Your task to perform on an android device: change the clock display to show seconds Image 0: 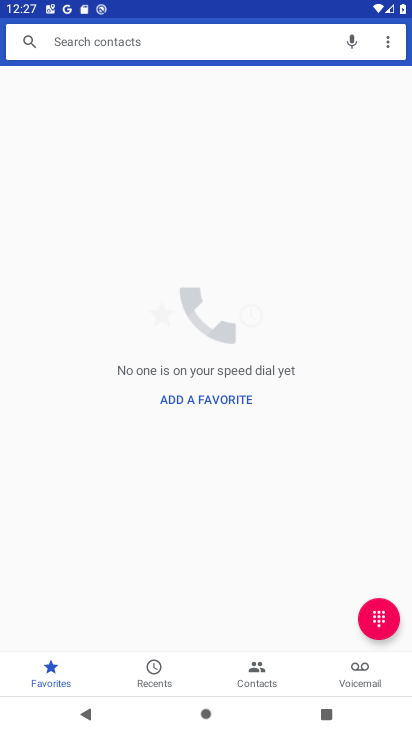
Step 0: press home button
Your task to perform on an android device: change the clock display to show seconds Image 1: 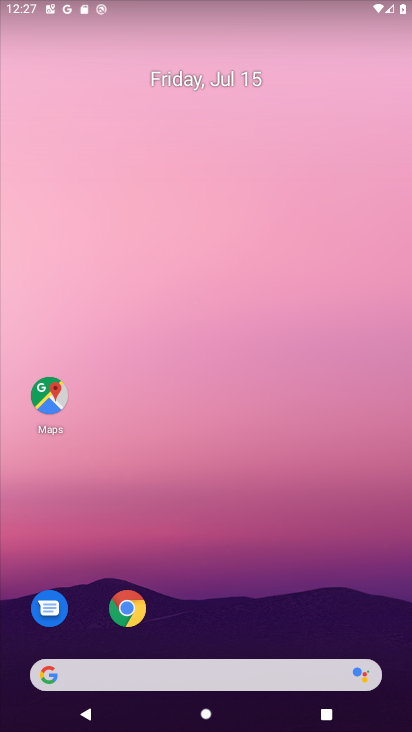
Step 1: drag from (201, 568) to (140, 0)
Your task to perform on an android device: change the clock display to show seconds Image 2: 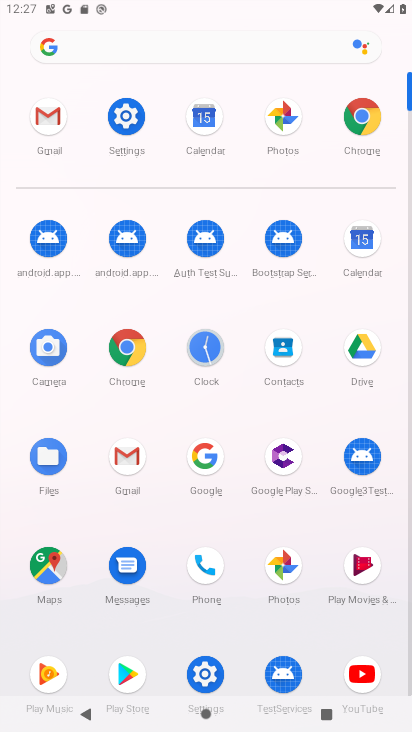
Step 2: click (205, 353)
Your task to perform on an android device: change the clock display to show seconds Image 3: 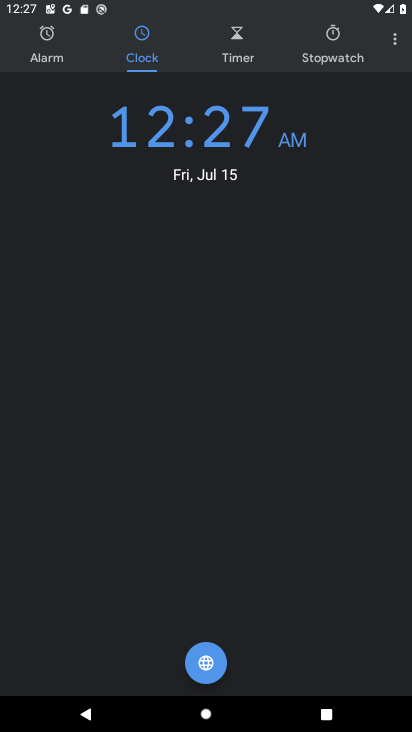
Step 3: click (393, 44)
Your task to perform on an android device: change the clock display to show seconds Image 4: 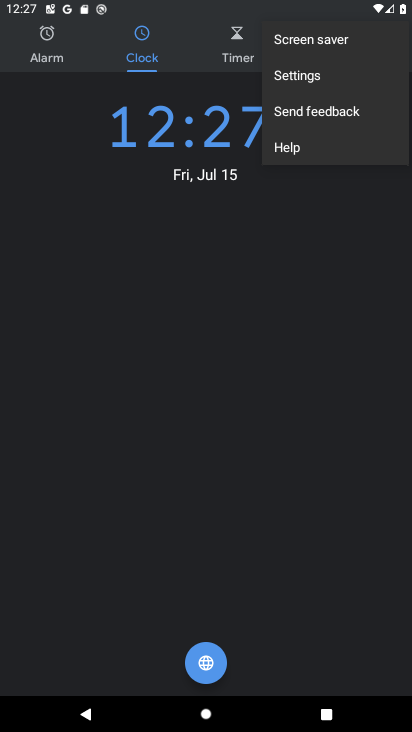
Step 4: click (314, 67)
Your task to perform on an android device: change the clock display to show seconds Image 5: 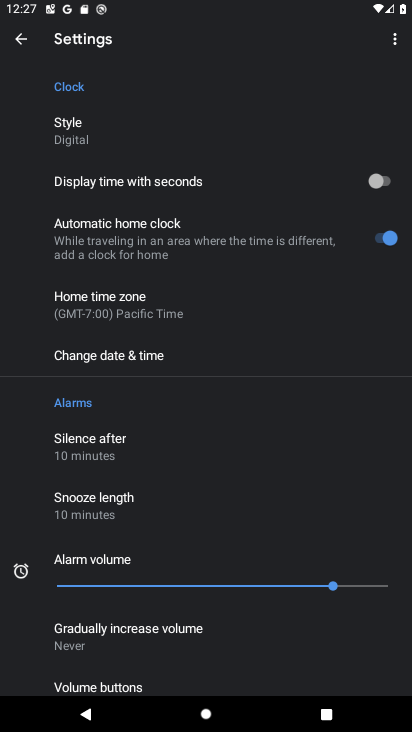
Step 5: click (370, 183)
Your task to perform on an android device: change the clock display to show seconds Image 6: 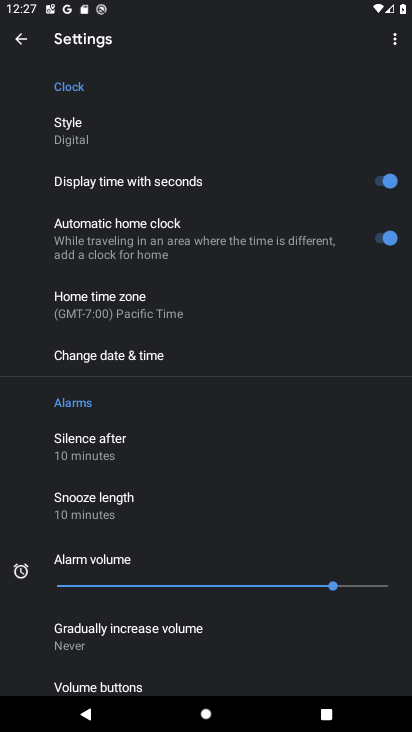
Step 6: task complete